Your task to perform on an android device: check battery use Image 0: 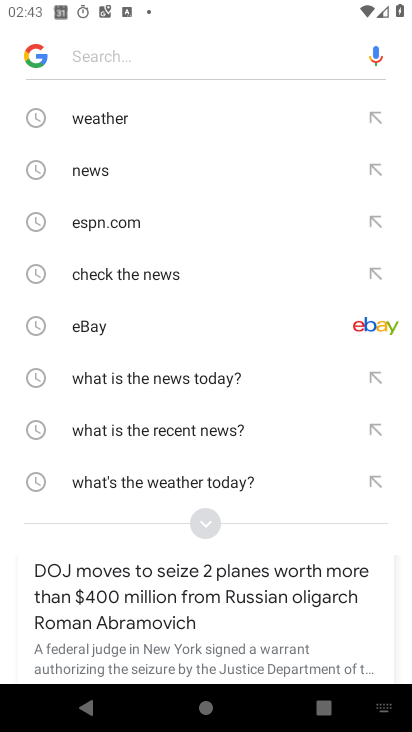
Step 0: press home button
Your task to perform on an android device: check battery use Image 1: 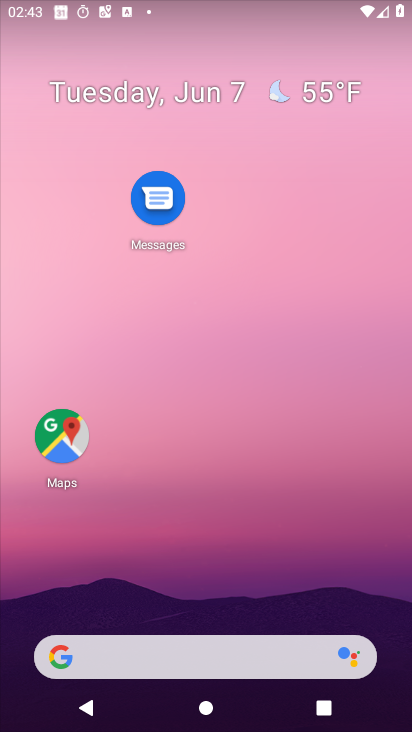
Step 1: drag from (193, 583) to (196, 134)
Your task to perform on an android device: check battery use Image 2: 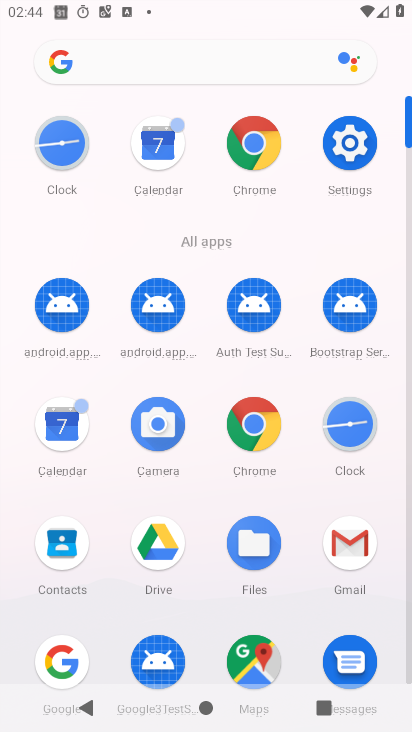
Step 2: click (340, 151)
Your task to perform on an android device: check battery use Image 3: 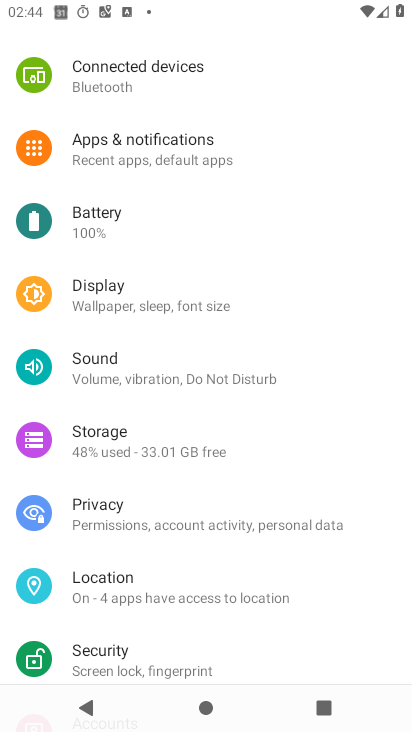
Step 3: click (102, 220)
Your task to perform on an android device: check battery use Image 4: 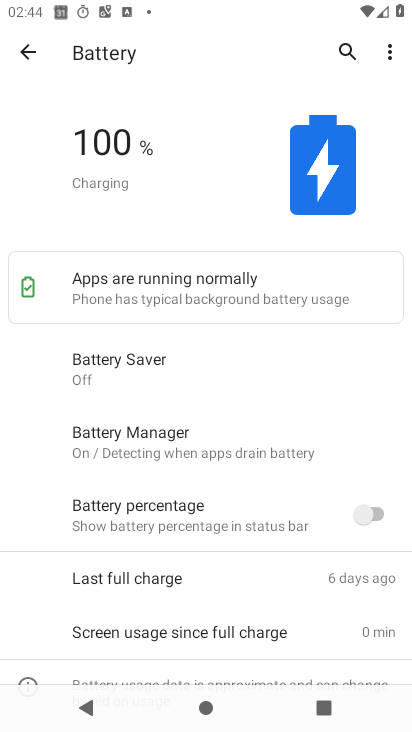
Step 4: task complete